Your task to perform on an android device: change the clock display to digital Image 0: 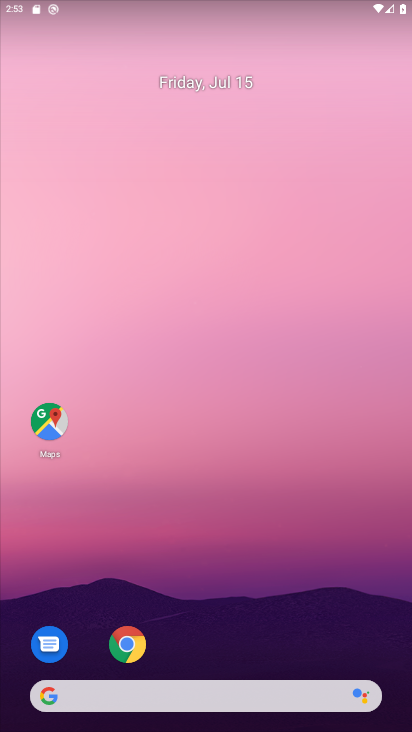
Step 0: drag from (389, 669) to (304, 121)
Your task to perform on an android device: change the clock display to digital Image 1: 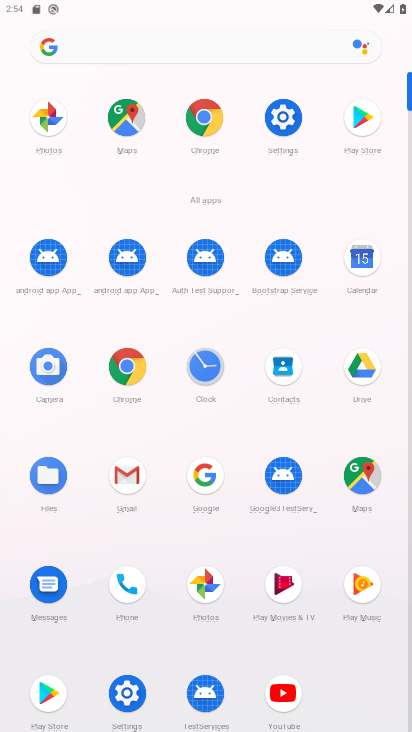
Step 1: click (127, 694)
Your task to perform on an android device: change the clock display to digital Image 2: 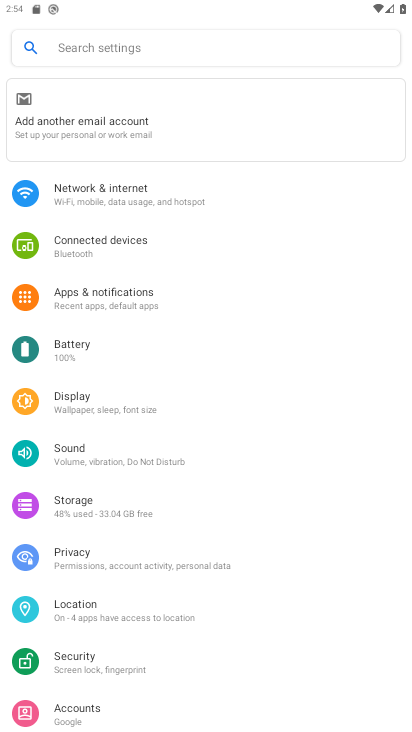
Step 2: click (82, 393)
Your task to perform on an android device: change the clock display to digital Image 3: 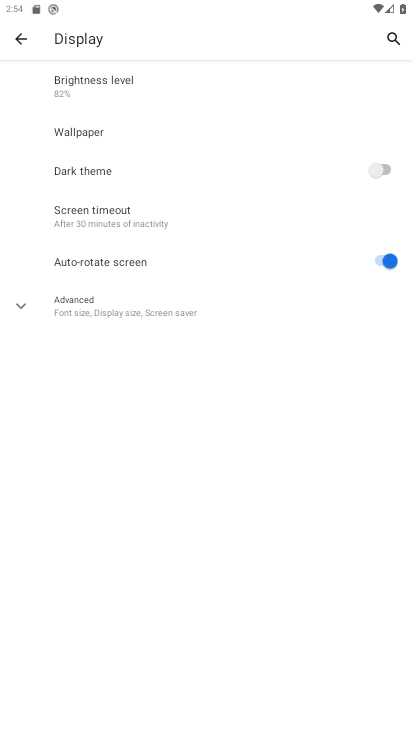
Step 3: click (39, 309)
Your task to perform on an android device: change the clock display to digital Image 4: 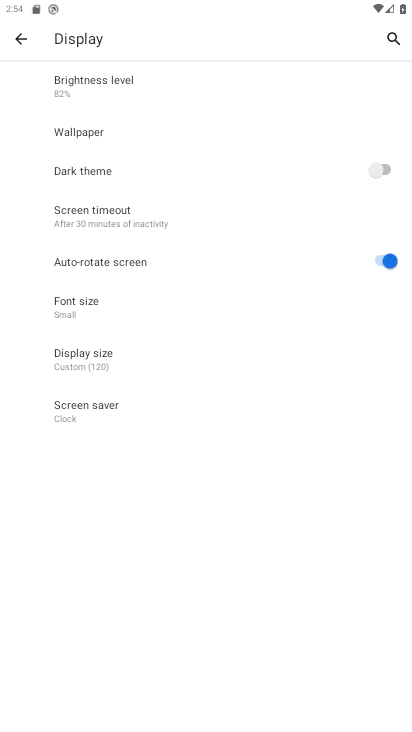
Step 4: task complete